Your task to perform on an android device: open a new tab in the chrome app Image 0: 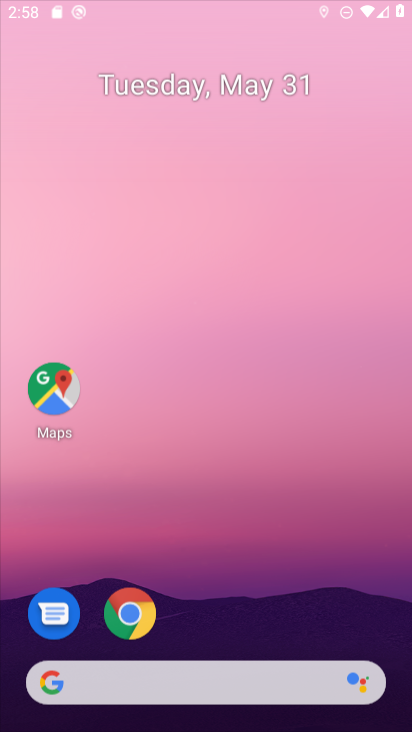
Step 0: drag from (227, 675) to (174, 130)
Your task to perform on an android device: open a new tab in the chrome app Image 1: 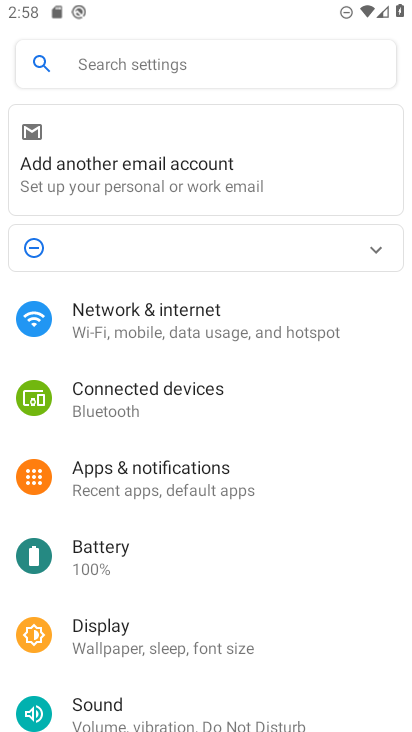
Step 1: press home button
Your task to perform on an android device: open a new tab in the chrome app Image 2: 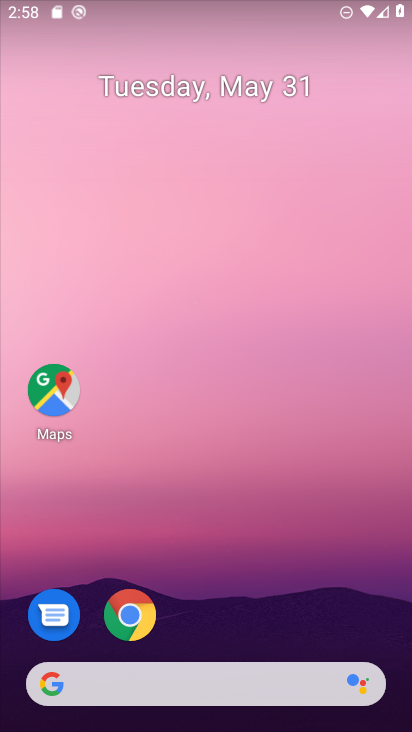
Step 2: drag from (229, 670) to (240, 175)
Your task to perform on an android device: open a new tab in the chrome app Image 3: 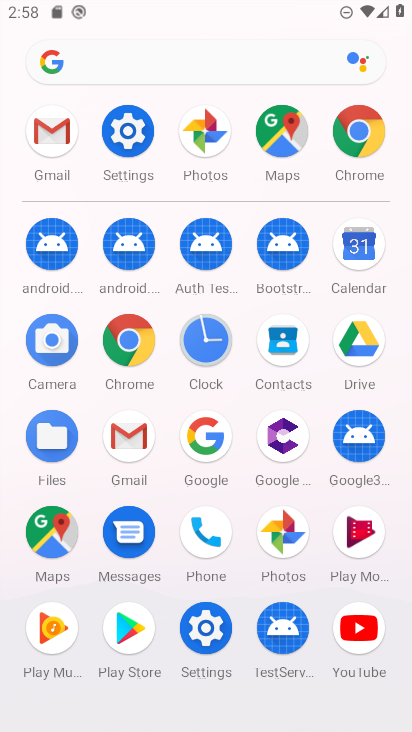
Step 3: click (348, 143)
Your task to perform on an android device: open a new tab in the chrome app Image 4: 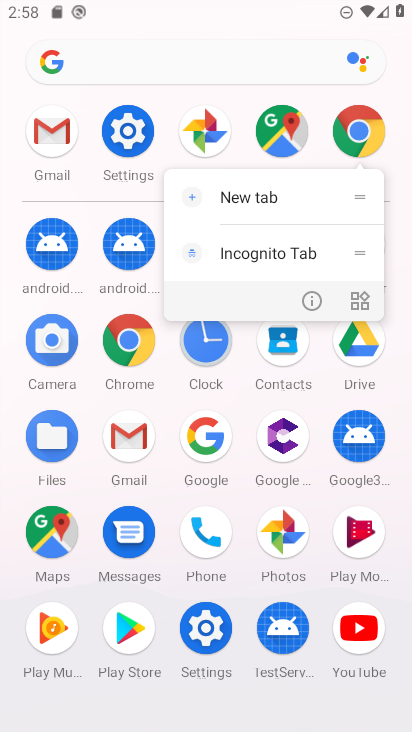
Step 4: click (240, 198)
Your task to perform on an android device: open a new tab in the chrome app Image 5: 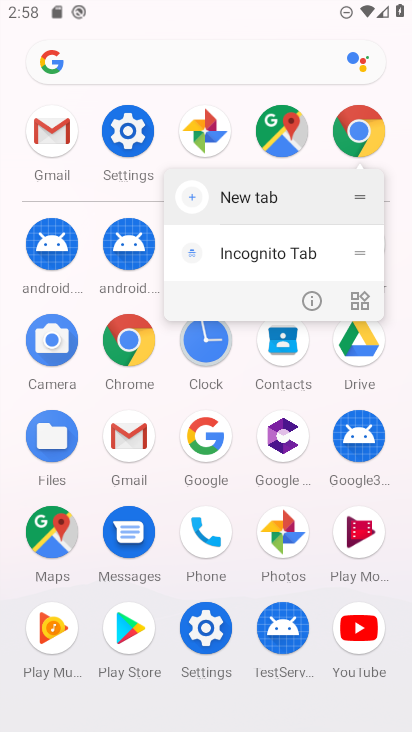
Step 5: click (239, 195)
Your task to perform on an android device: open a new tab in the chrome app Image 6: 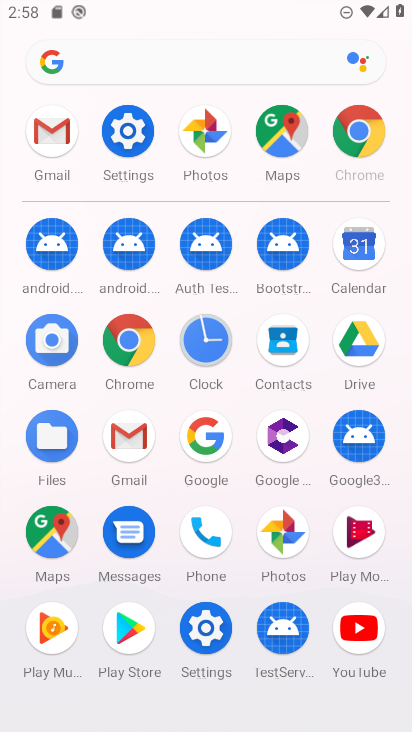
Step 6: click (240, 194)
Your task to perform on an android device: open a new tab in the chrome app Image 7: 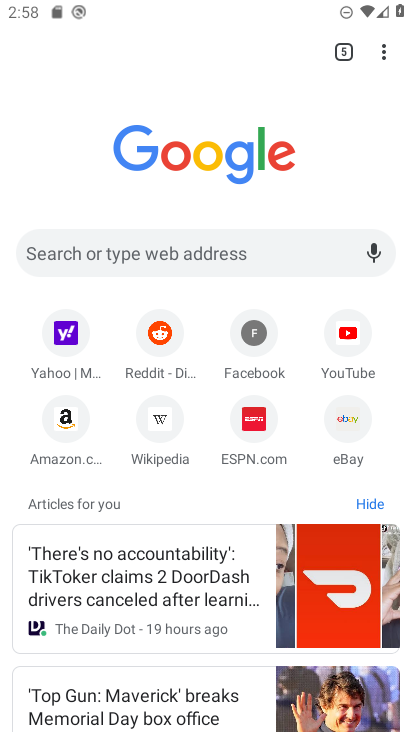
Step 7: task complete